Your task to perform on an android device: Open maps Image 0: 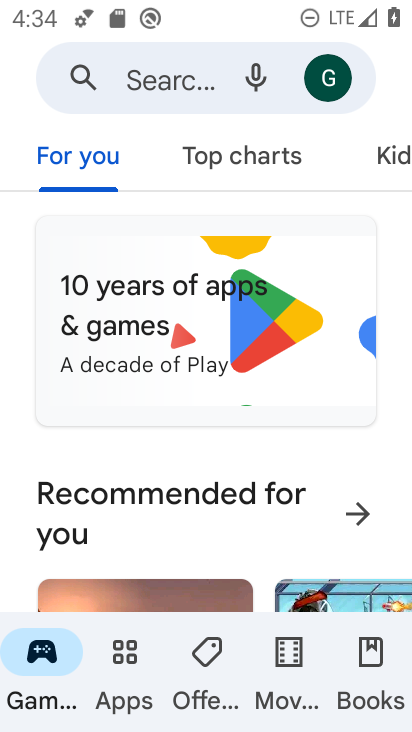
Step 0: press back button
Your task to perform on an android device: Open maps Image 1: 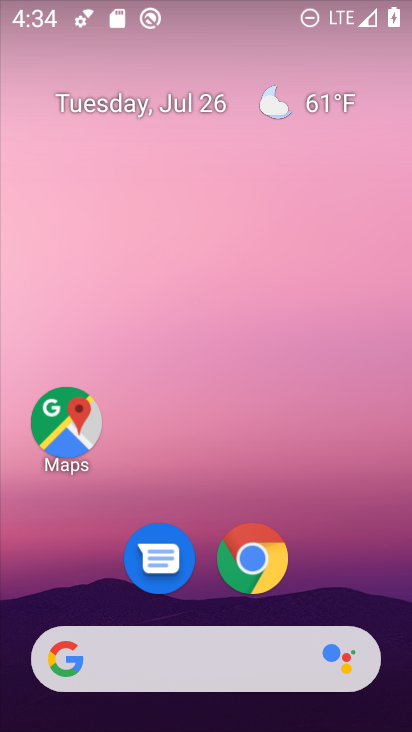
Step 1: click (54, 441)
Your task to perform on an android device: Open maps Image 2: 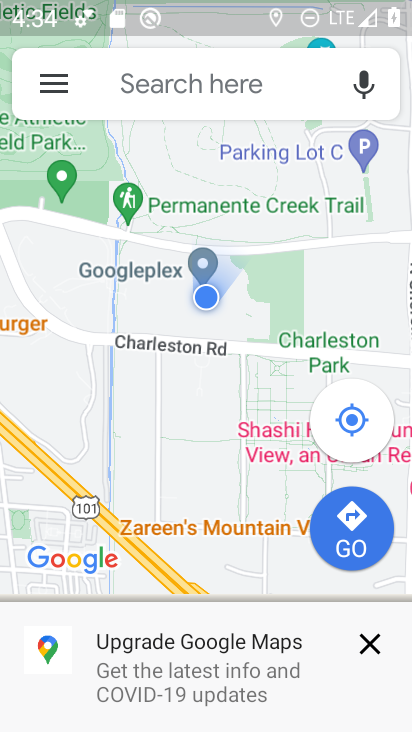
Step 2: task complete